Your task to perform on an android device: Open the calendar and show me this week's events Image 0: 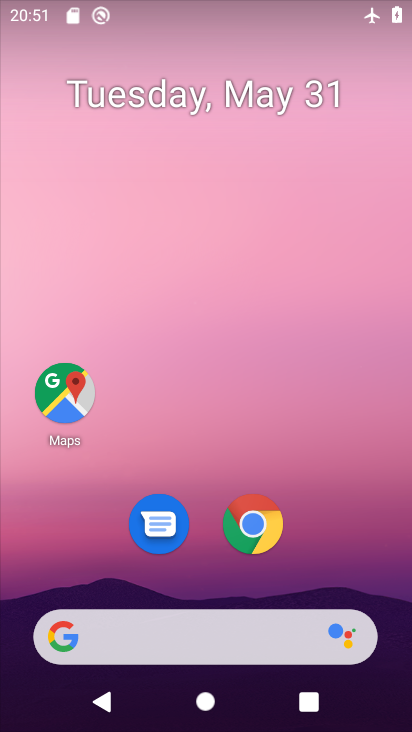
Step 0: drag from (219, 448) to (224, 8)
Your task to perform on an android device: Open the calendar and show me this week's events Image 1: 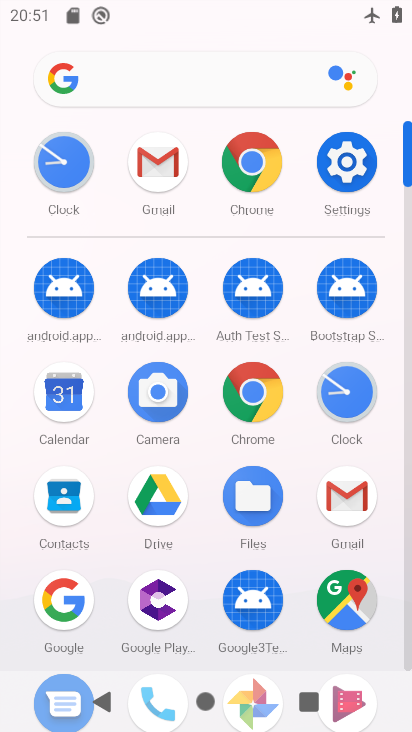
Step 1: click (68, 395)
Your task to perform on an android device: Open the calendar and show me this week's events Image 2: 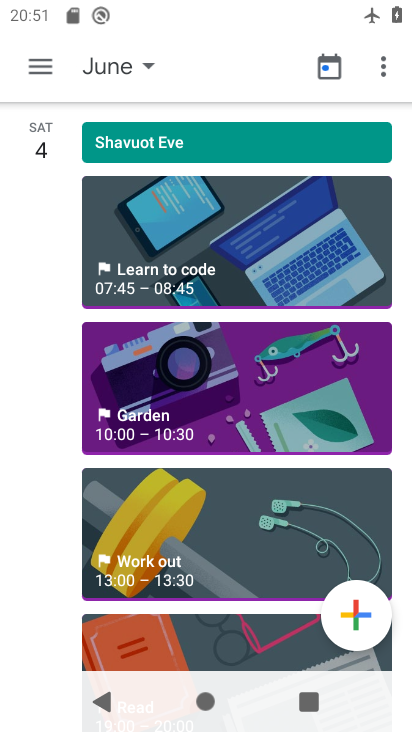
Step 2: task complete